Your task to perform on an android device: Open Google Maps Image 0: 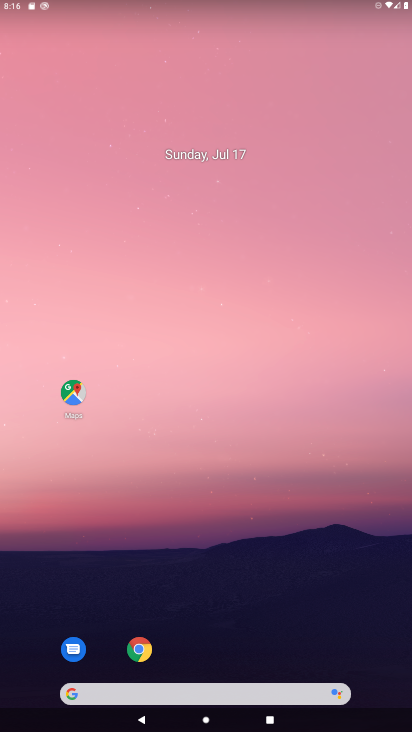
Step 0: drag from (195, 665) to (135, 279)
Your task to perform on an android device: Open Google Maps Image 1: 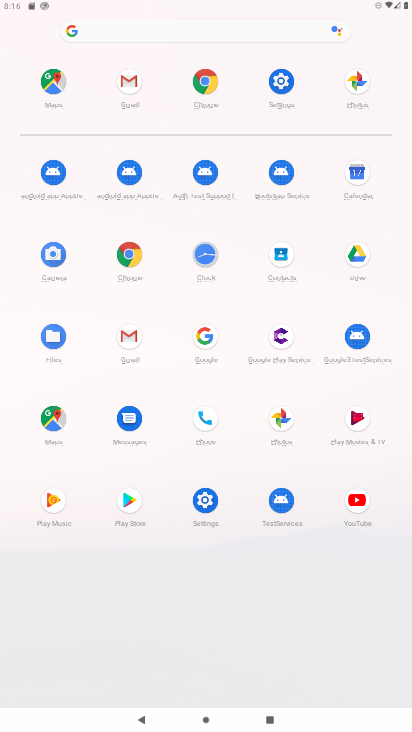
Step 1: click (52, 428)
Your task to perform on an android device: Open Google Maps Image 2: 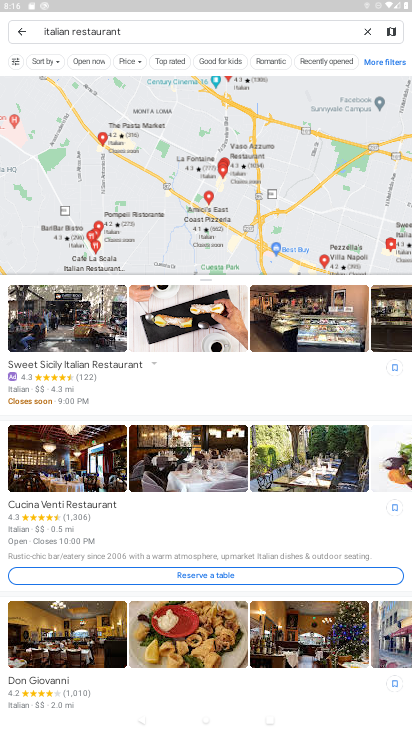
Step 2: click (4, 22)
Your task to perform on an android device: Open Google Maps Image 3: 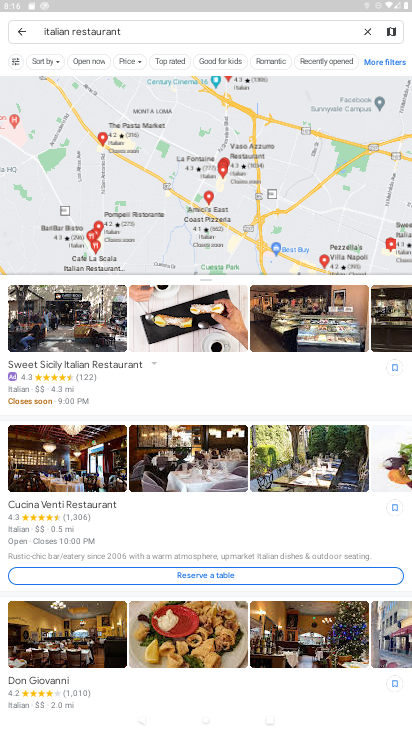
Step 3: task complete